Your task to perform on an android device: create a new album in the google photos Image 0: 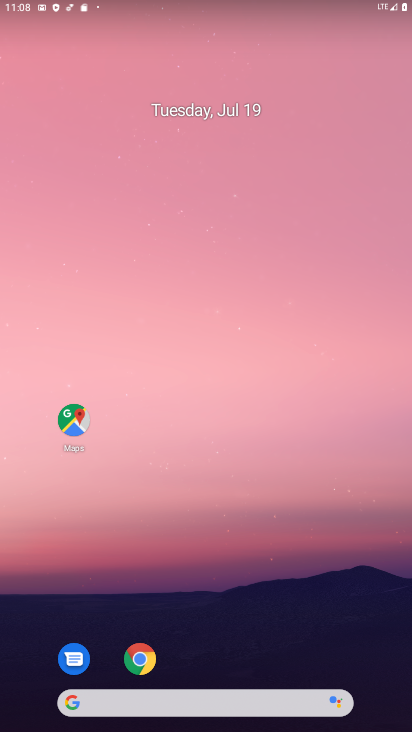
Step 0: drag from (266, 456) to (240, 184)
Your task to perform on an android device: create a new album in the google photos Image 1: 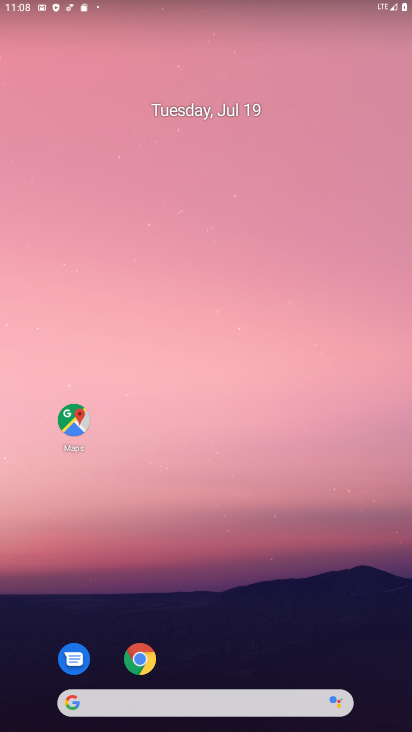
Step 1: drag from (326, 590) to (275, 184)
Your task to perform on an android device: create a new album in the google photos Image 2: 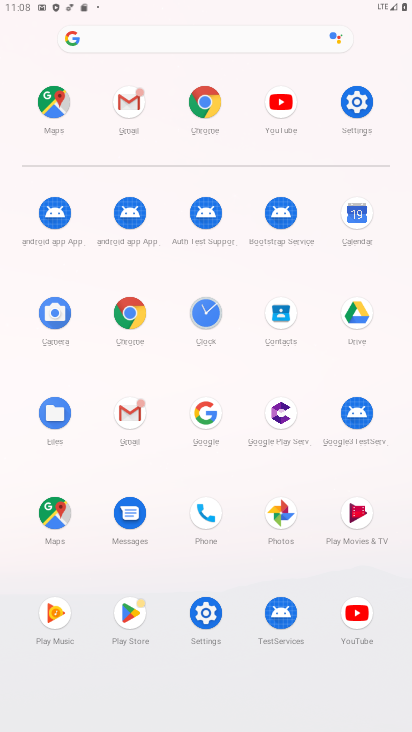
Step 2: click (272, 514)
Your task to perform on an android device: create a new album in the google photos Image 3: 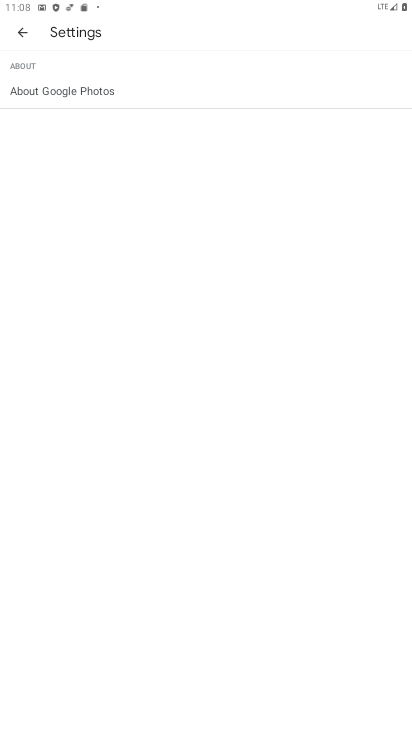
Step 3: click (19, 37)
Your task to perform on an android device: create a new album in the google photos Image 4: 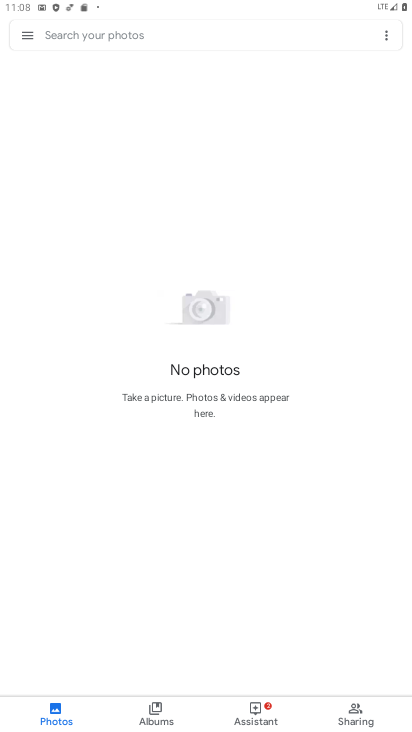
Step 4: task complete